Your task to perform on an android device: Open display settings Image 0: 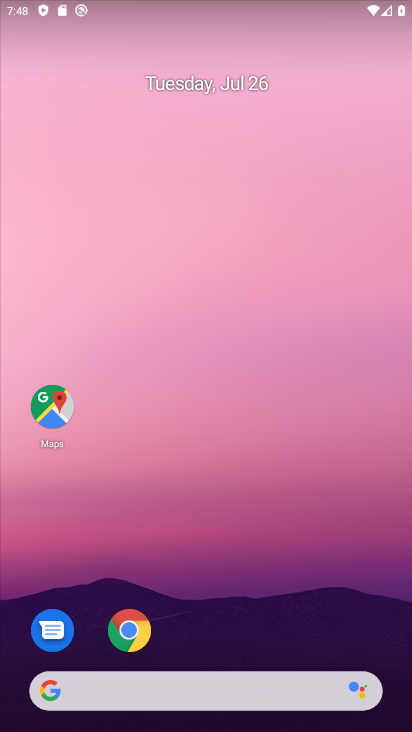
Step 0: drag from (289, 634) to (264, 2)
Your task to perform on an android device: Open display settings Image 1: 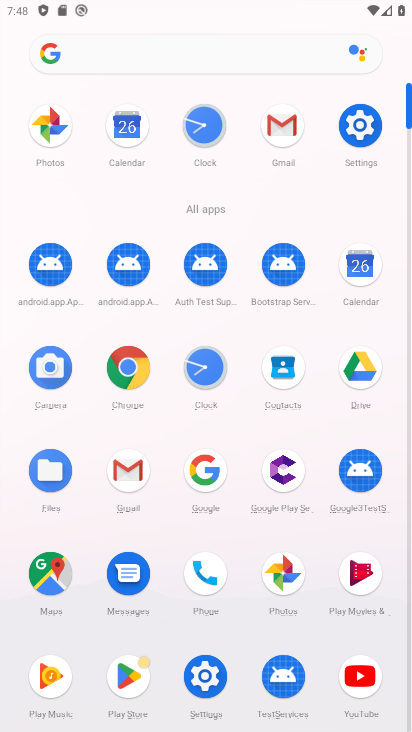
Step 1: click (217, 684)
Your task to perform on an android device: Open display settings Image 2: 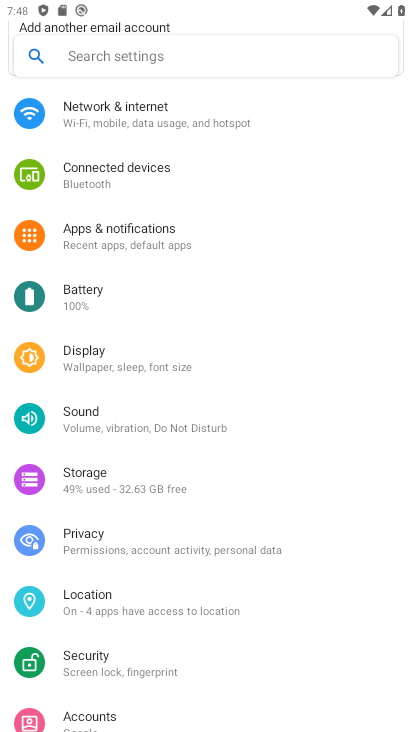
Step 2: click (94, 353)
Your task to perform on an android device: Open display settings Image 3: 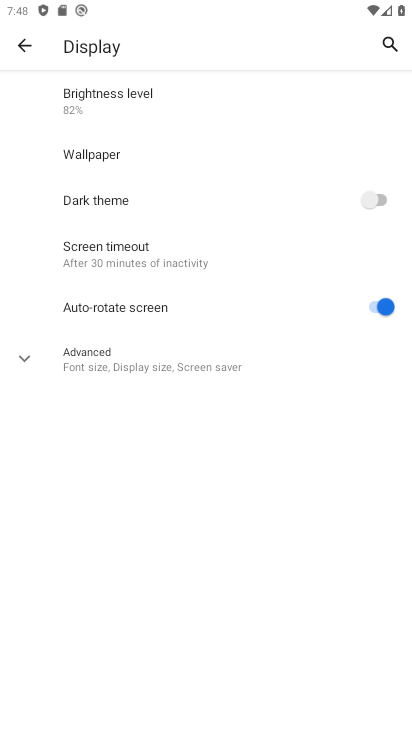
Step 3: task complete